Your task to perform on an android device: turn on wifi Image 0: 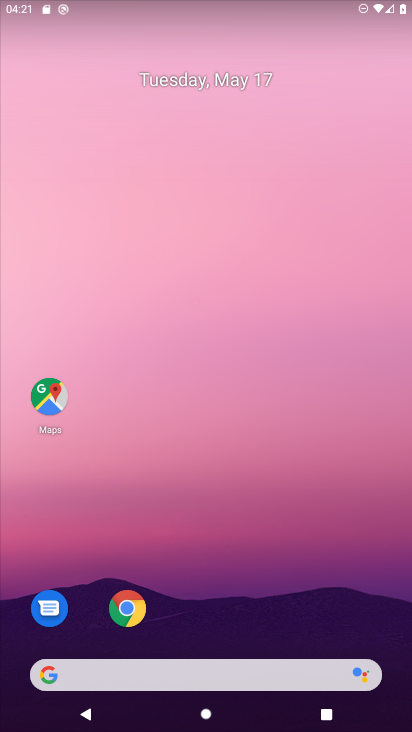
Step 0: drag from (185, 648) to (228, 349)
Your task to perform on an android device: turn on wifi Image 1: 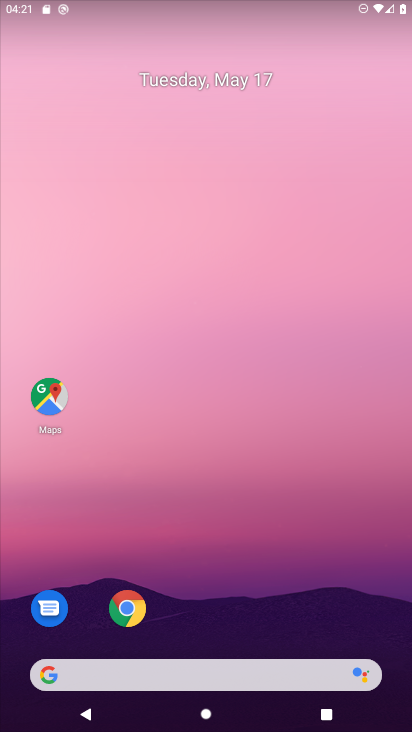
Step 1: drag from (190, 658) to (249, 254)
Your task to perform on an android device: turn on wifi Image 2: 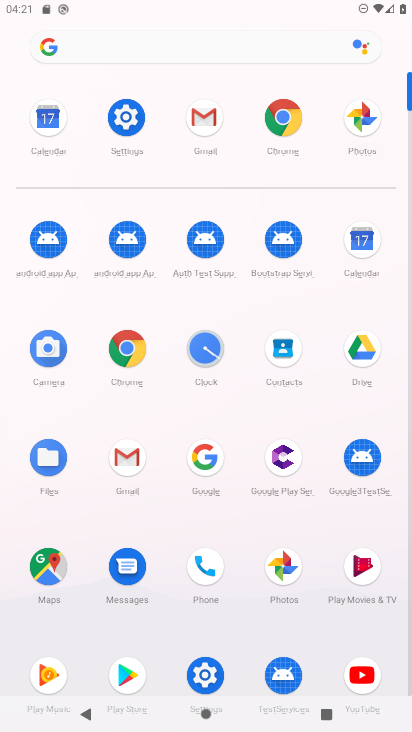
Step 2: click (124, 126)
Your task to perform on an android device: turn on wifi Image 3: 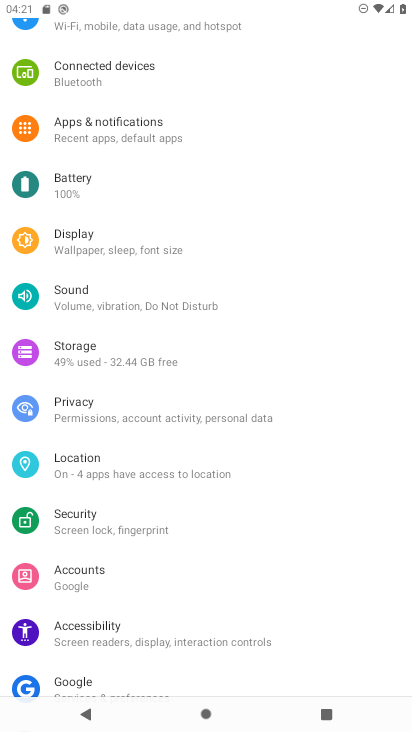
Step 3: drag from (145, 70) to (163, 521)
Your task to perform on an android device: turn on wifi Image 4: 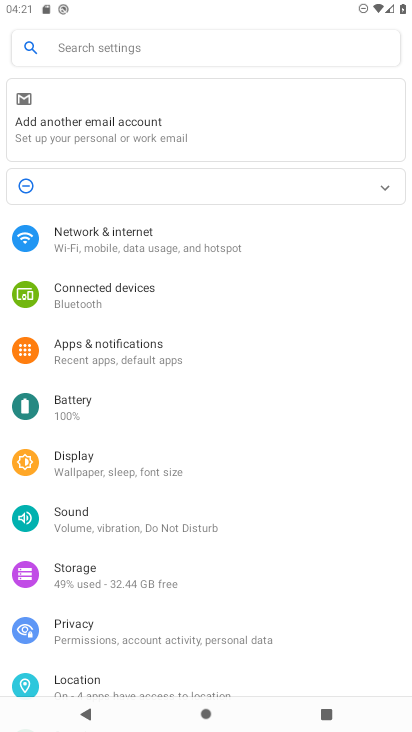
Step 4: click (122, 241)
Your task to perform on an android device: turn on wifi Image 5: 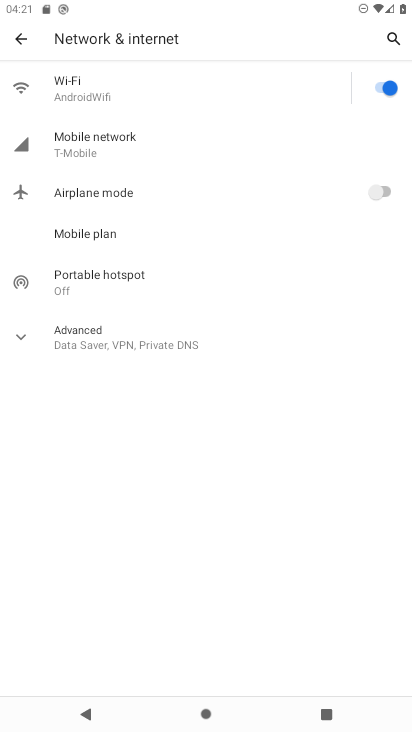
Step 5: task complete